Your task to perform on an android device: turn on javascript in the chrome app Image 0: 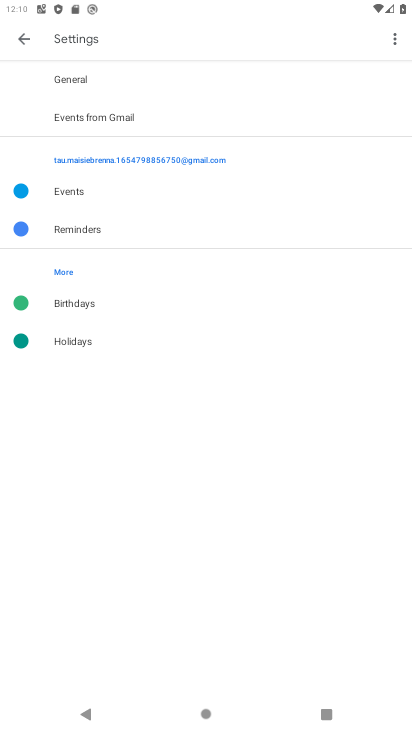
Step 0: press home button
Your task to perform on an android device: turn on javascript in the chrome app Image 1: 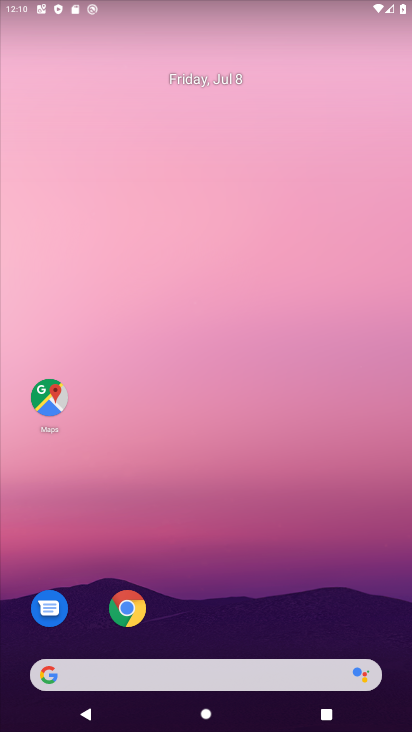
Step 1: click (129, 607)
Your task to perform on an android device: turn on javascript in the chrome app Image 2: 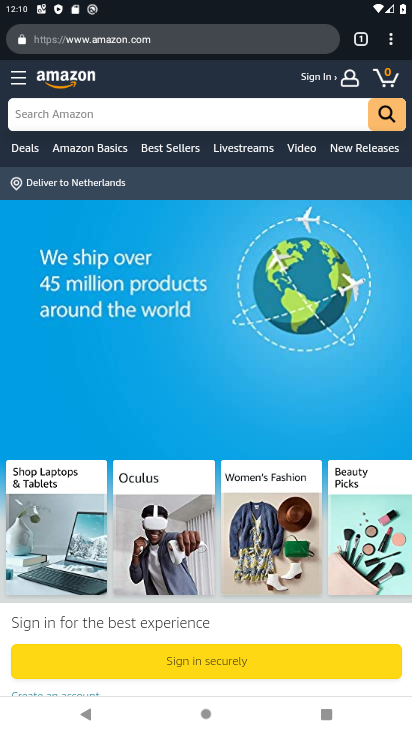
Step 2: click (392, 35)
Your task to perform on an android device: turn on javascript in the chrome app Image 3: 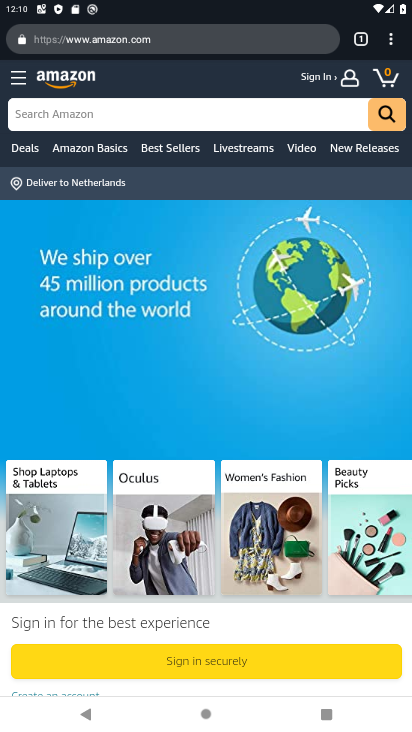
Step 3: click (390, 39)
Your task to perform on an android device: turn on javascript in the chrome app Image 4: 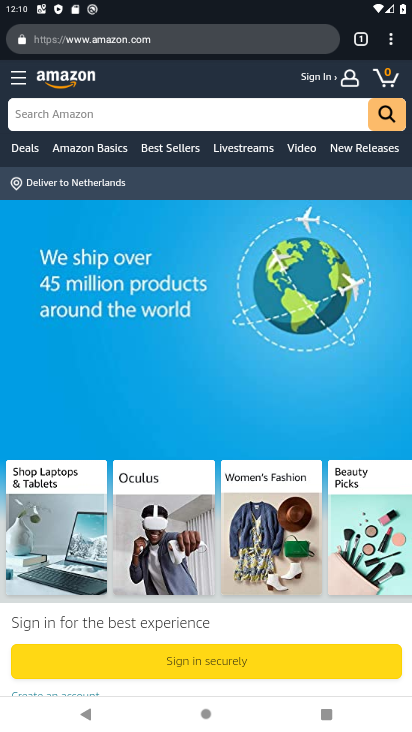
Step 4: click (387, 37)
Your task to perform on an android device: turn on javascript in the chrome app Image 5: 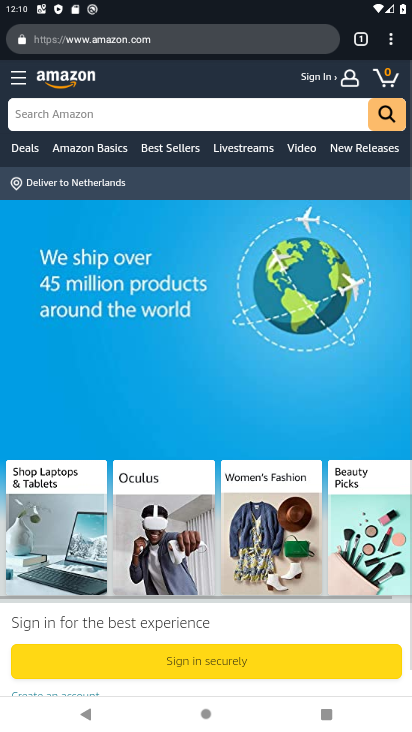
Step 5: click (395, 43)
Your task to perform on an android device: turn on javascript in the chrome app Image 6: 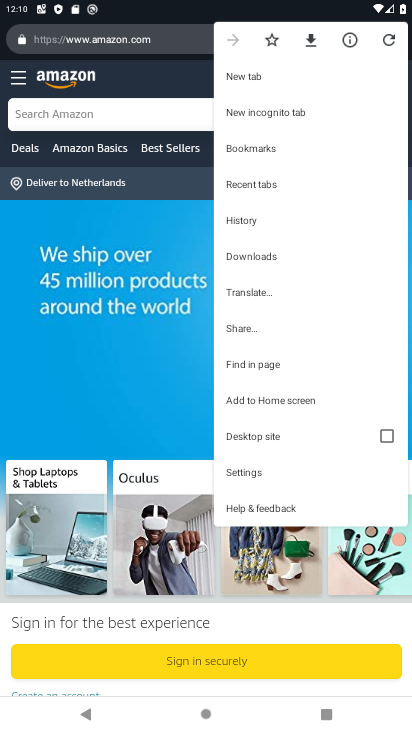
Step 6: click (260, 473)
Your task to perform on an android device: turn on javascript in the chrome app Image 7: 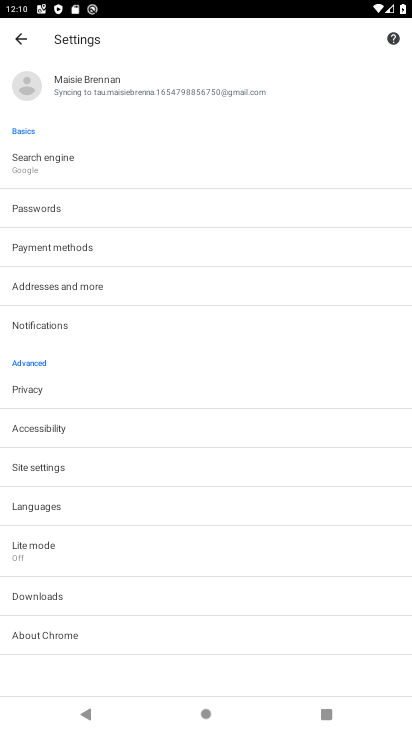
Step 7: click (42, 466)
Your task to perform on an android device: turn on javascript in the chrome app Image 8: 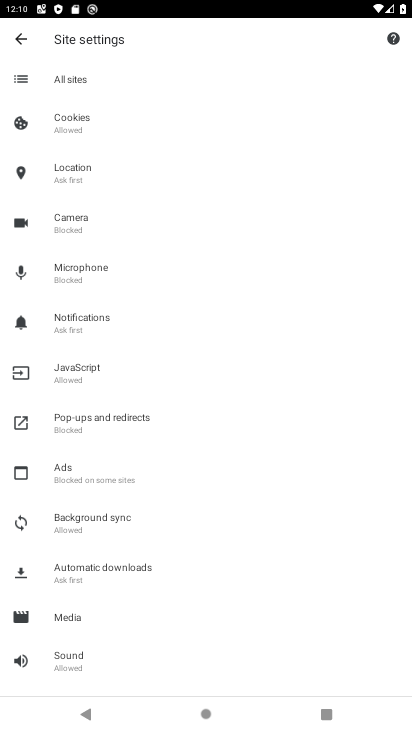
Step 8: click (96, 366)
Your task to perform on an android device: turn on javascript in the chrome app Image 9: 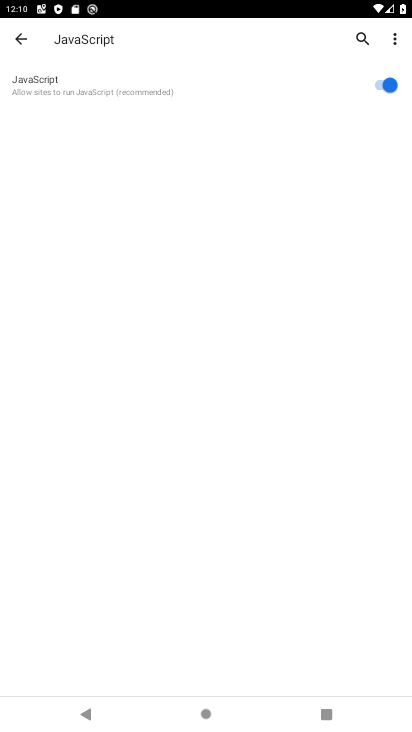
Step 9: click (70, 372)
Your task to perform on an android device: turn on javascript in the chrome app Image 10: 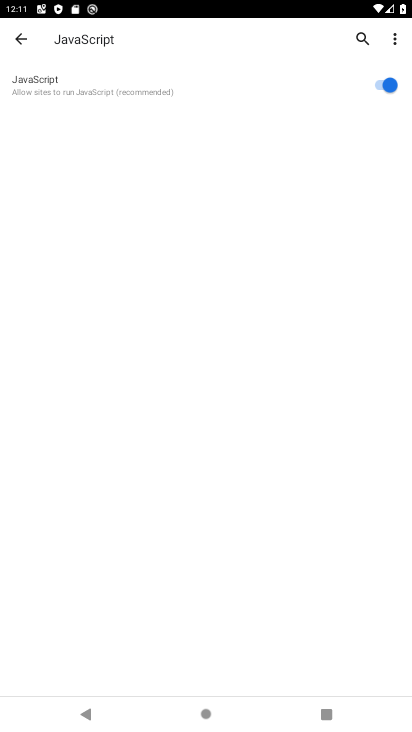
Step 10: task complete